Your task to perform on an android device: refresh tabs in the chrome app Image 0: 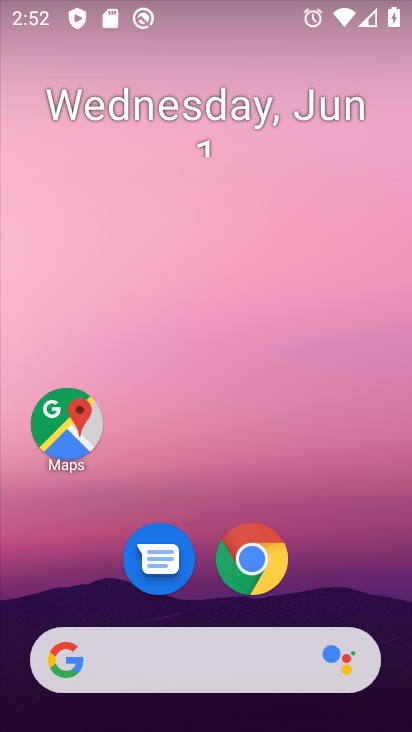
Step 0: click (262, 562)
Your task to perform on an android device: refresh tabs in the chrome app Image 1: 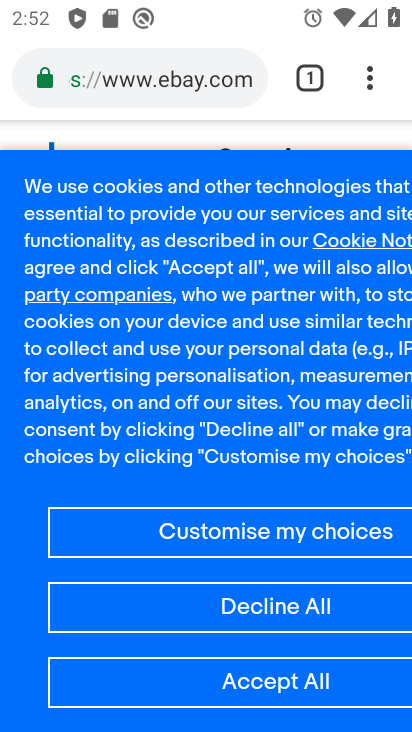
Step 1: click (367, 75)
Your task to perform on an android device: refresh tabs in the chrome app Image 2: 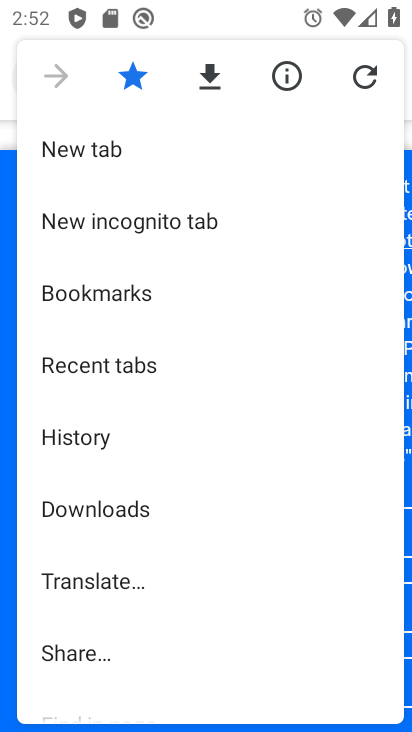
Step 2: drag from (274, 672) to (310, 218)
Your task to perform on an android device: refresh tabs in the chrome app Image 3: 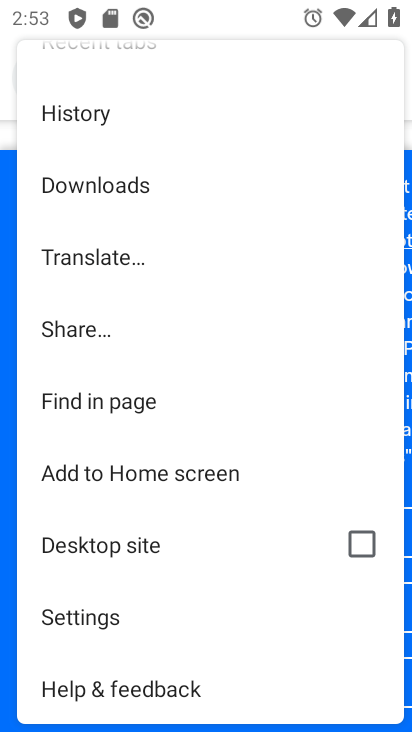
Step 3: drag from (232, 234) to (240, 642)
Your task to perform on an android device: refresh tabs in the chrome app Image 4: 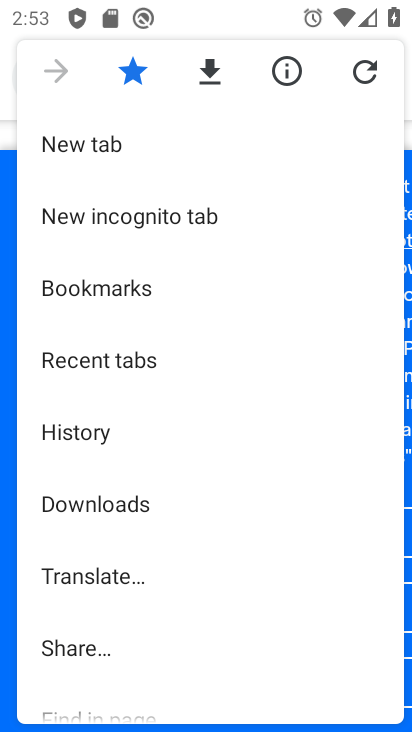
Step 4: click (363, 69)
Your task to perform on an android device: refresh tabs in the chrome app Image 5: 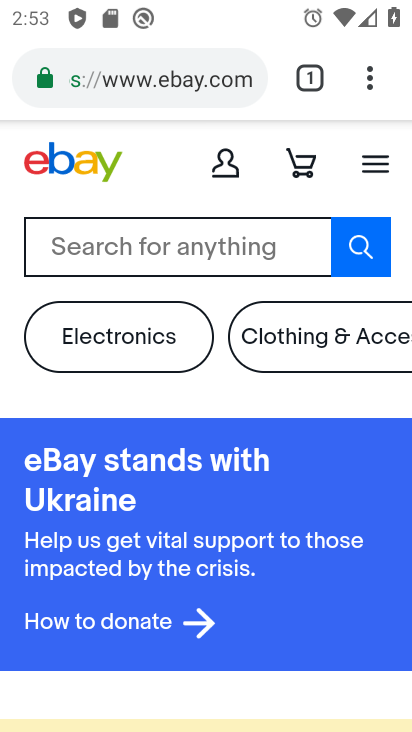
Step 5: task complete